Your task to perform on an android device: Is it going to rain today? Image 0: 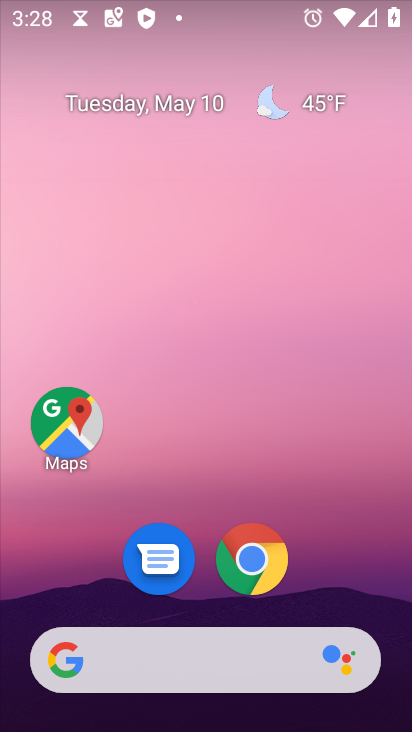
Step 0: click (250, 94)
Your task to perform on an android device: Is it going to rain today? Image 1: 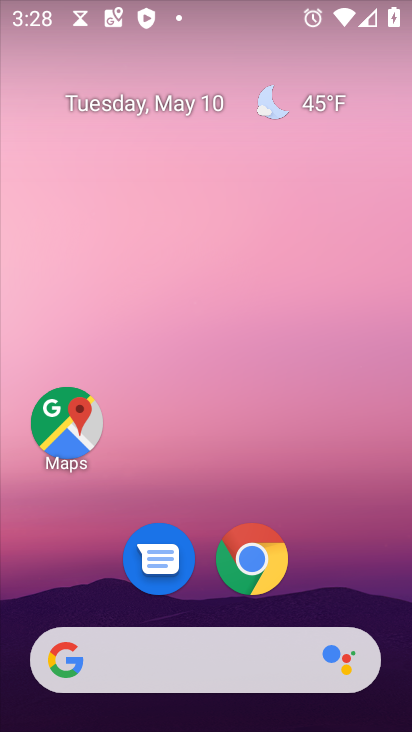
Step 1: click (262, 101)
Your task to perform on an android device: Is it going to rain today? Image 2: 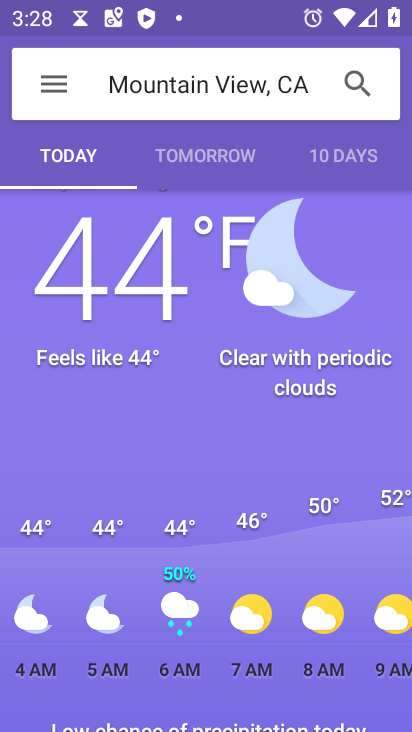
Step 2: task complete